Your task to perform on an android device: Open eBay Image 0: 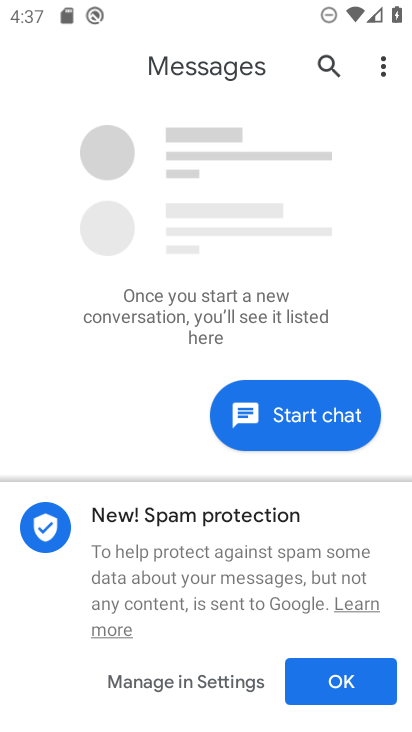
Step 0: press home button
Your task to perform on an android device: Open eBay Image 1: 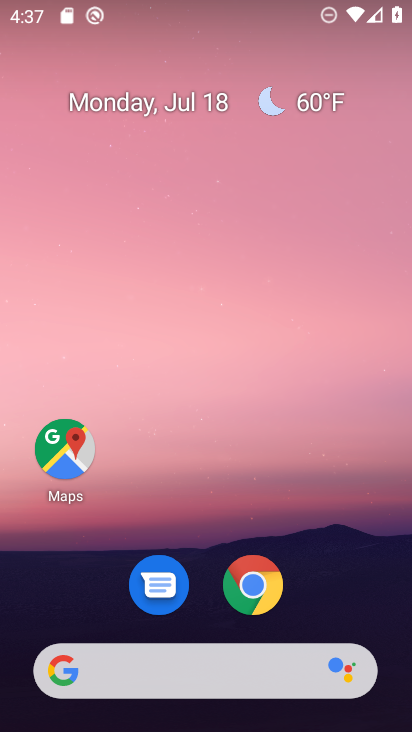
Step 1: click (245, 684)
Your task to perform on an android device: Open eBay Image 2: 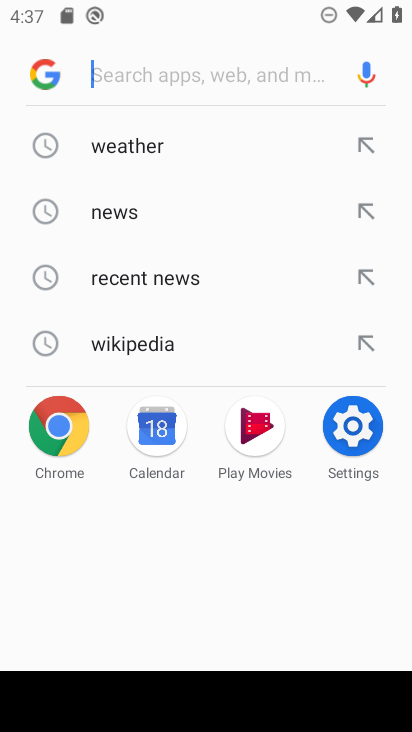
Step 2: type "ebay"
Your task to perform on an android device: Open eBay Image 3: 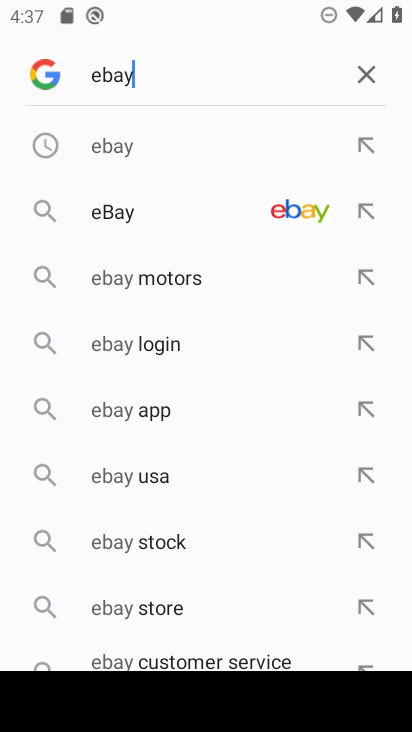
Step 3: click (302, 211)
Your task to perform on an android device: Open eBay Image 4: 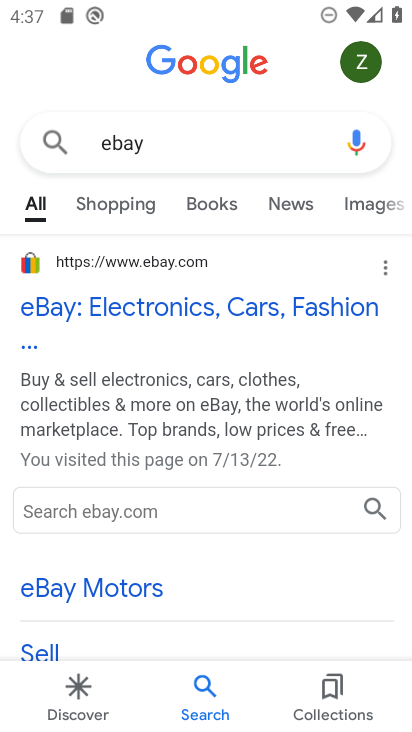
Step 4: click (72, 311)
Your task to perform on an android device: Open eBay Image 5: 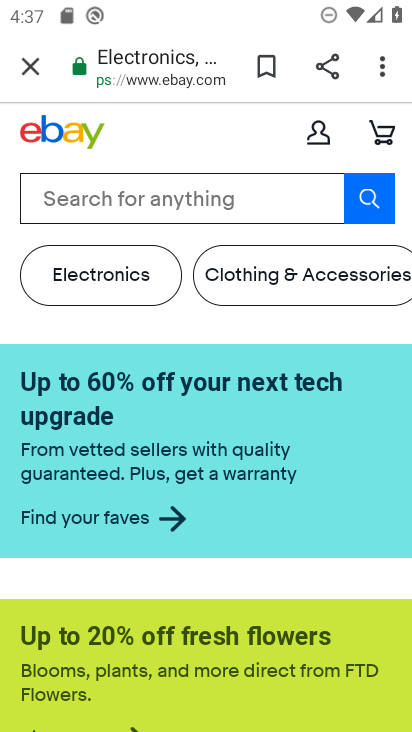
Step 5: task complete